Your task to perform on an android device: Open the Play Movies app and select the watchlist tab. Image 0: 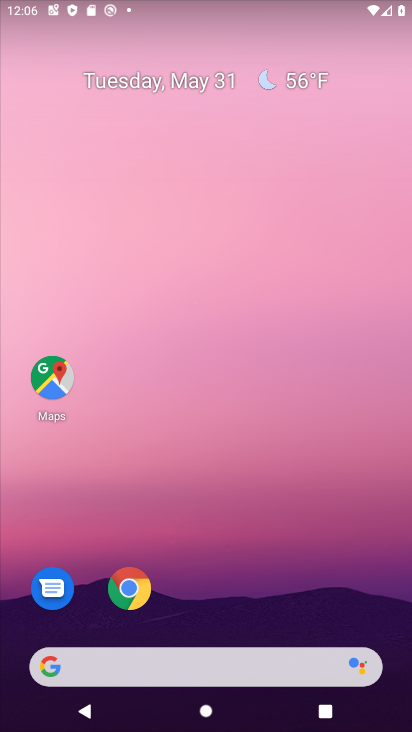
Step 0: drag from (227, 613) to (233, 167)
Your task to perform on an android device: Open the Play Movies app and select the watchlist tab. Image 1: 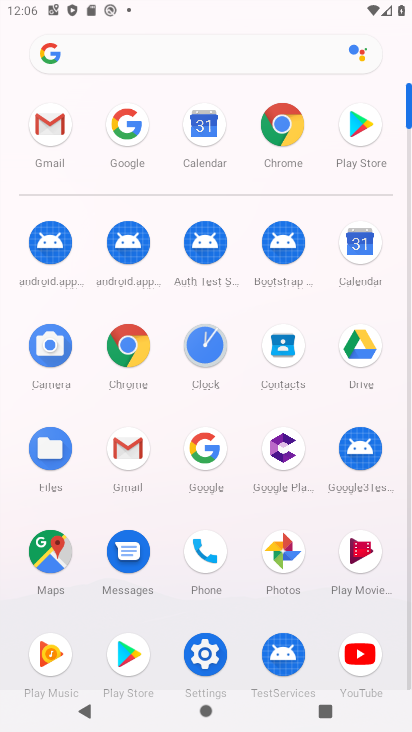
Step 1: click (356, 561)
Your task to perform on an android device: Open the Play Movies app and select the watchlist tab. Image 2: 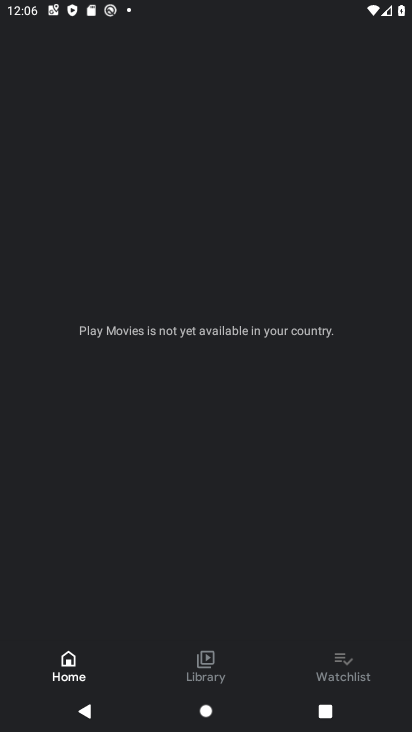
Step 2: click (339, 679)
Your task to perform on an android device: Open the Play Movies app and select the watchlist tab. Image 3: 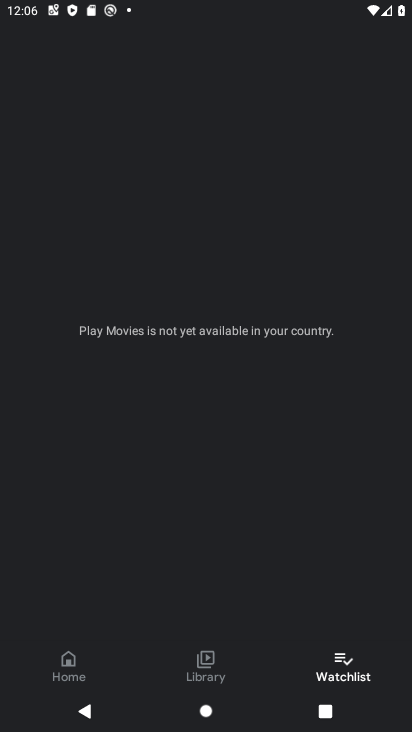
Step 3: task complete